Your task to perform on an android device: Open battery settings Image 0: 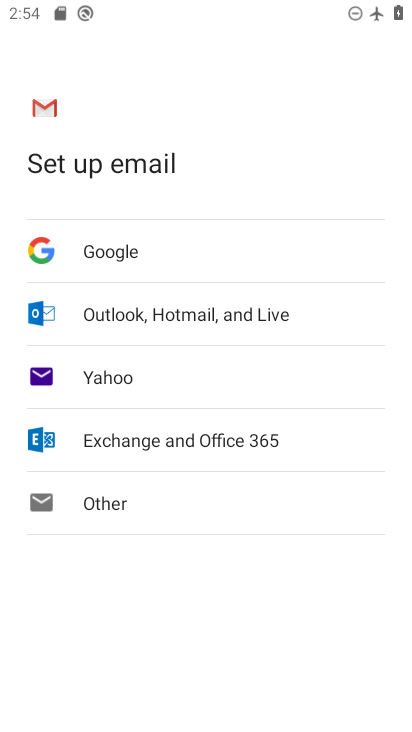
Step 0: press home button
Your task to perform on an android device: Open battery settings Image 1: 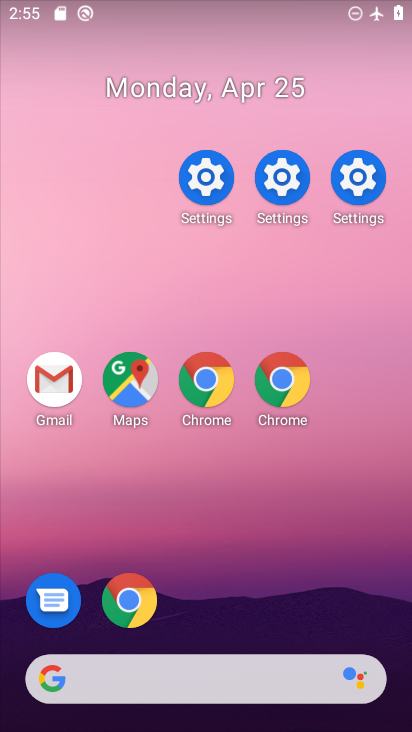
Step 1: drag from (215, 470) to (158, 35)
Your task to perform on an android device: Open battery settings Image 2: 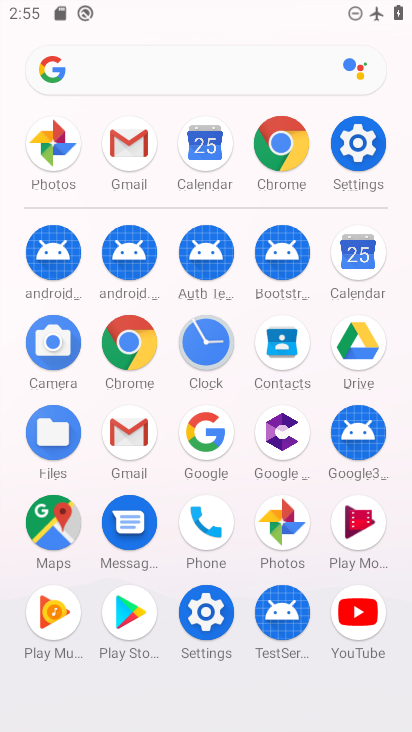
Step 2: click (363, 144)
Your task to perform on an android device: Open battery settings Image 3: 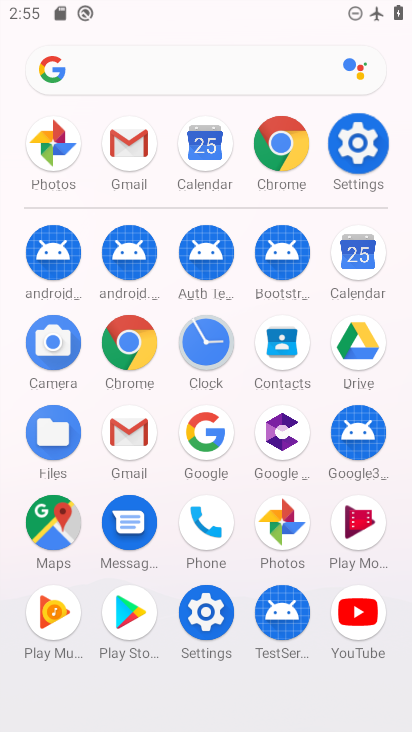
Step 3: click (363, 144)
Your task to perform on an android device: Open battery settings Image 4: 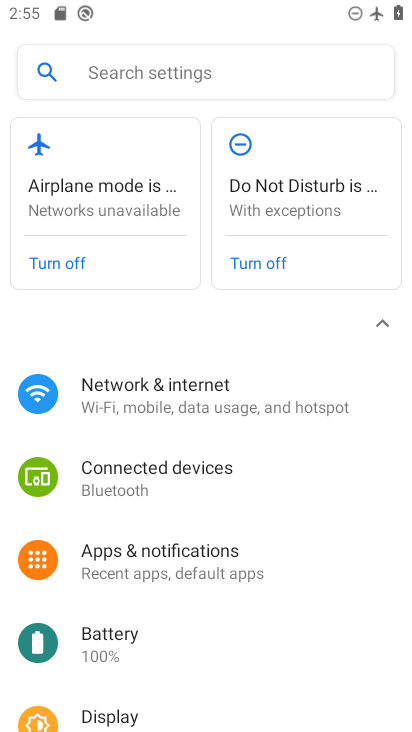
Step 4: drag from (126, 551) to (81, 187)
Your task to perform on an android device: Open battery settings Image 5: 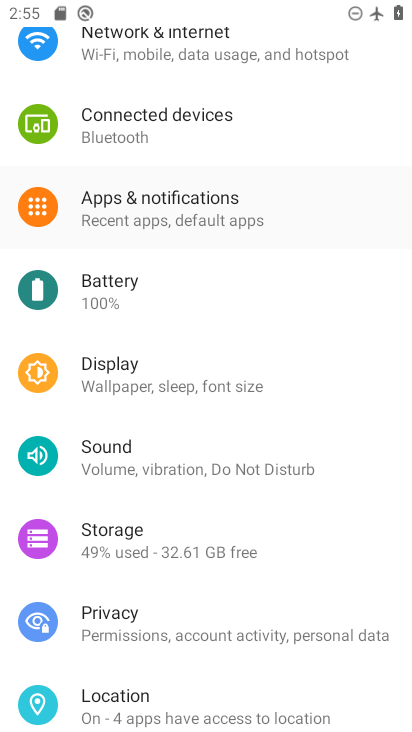
Step 5: drag from (149, 517) to (154, 135)
Your task to perform on an android device: Open battery settings Image 6: 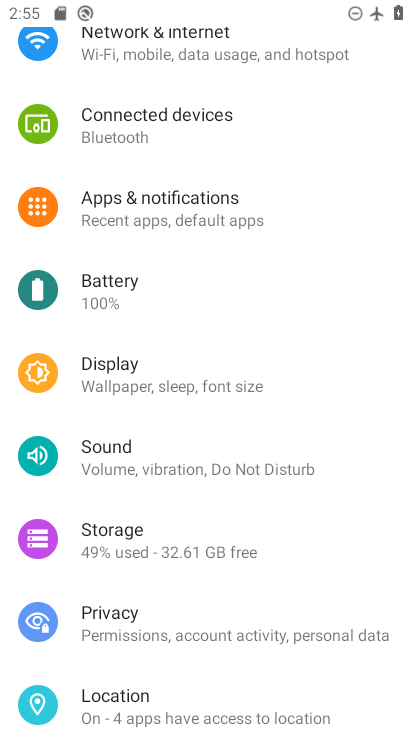
Step 6: click (99, 287)
Your task to perform on an android device: Open battery settings Image 7: 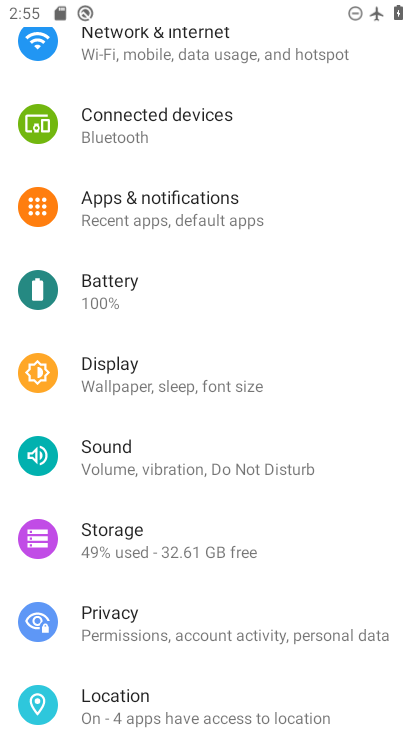
Step 7: click (92, 283)
Your task to perform on an android device: Open battery settings Image 8: 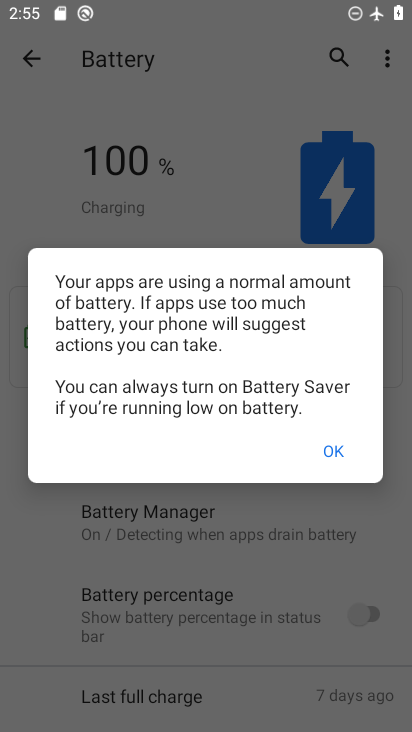
Step 8: click (339, 453)
Your task to perform on an android device: Open battery settings Image 9: 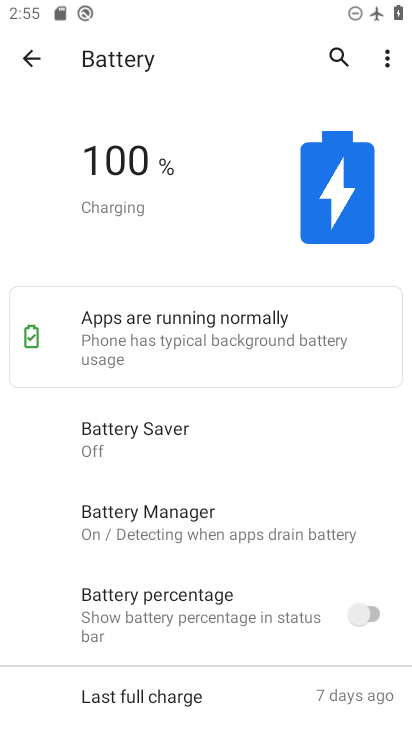
Step 9: task complete